Your task to perform on an android device: Go to Google maps Image 0: 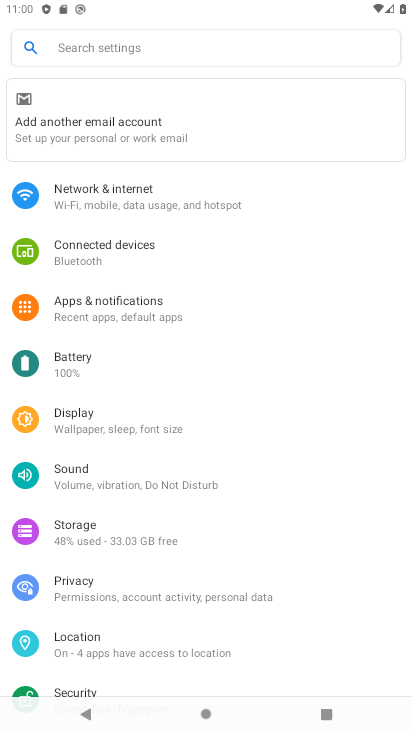
Step 0: press home button
Your task to perform on an android device: Go to Google maps Image 1: 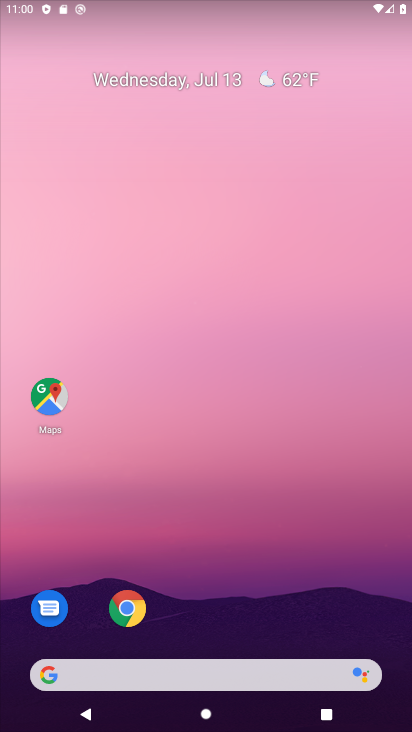
Step 1: drag from (230, 713) to (225, 247)
Your task to perform on an android device: Go to Google maps Image 2: 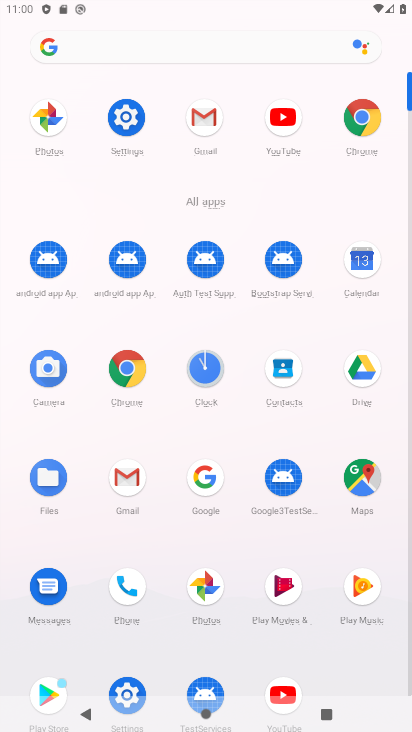
Step 2: click (359, 473)
Your task to perform on an android device: Go to Google maps Image 3: 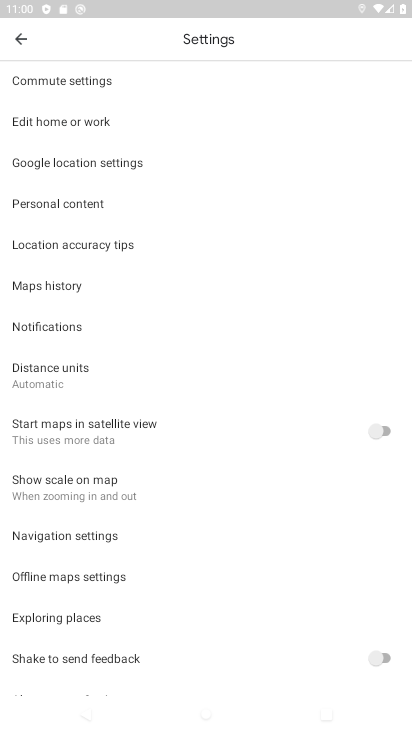
Step 3: click (25, 42)
Your task to perform on an android device: Go to Google maps Image 4: 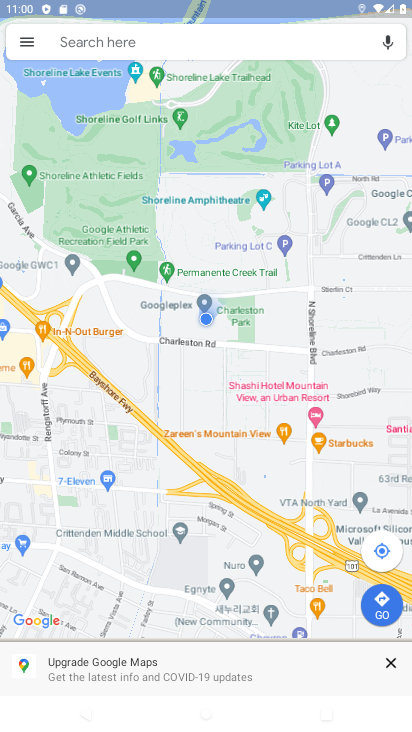
Step 4: task complete